Your task to perform on an android device: turn smart compose on in the gmail app Image 0: 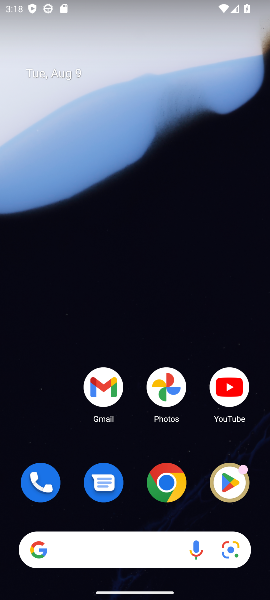
Step 0: drag from (132, 424) to (154, 34)
Your task to perform on an android device: turn smart compose on in the gmail app Image 1: 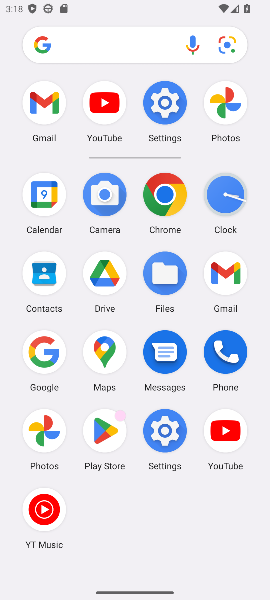
Step 1: click (218, 274)
Your task to perform on an android device: turn smart compose on in the gmail app Image 2: 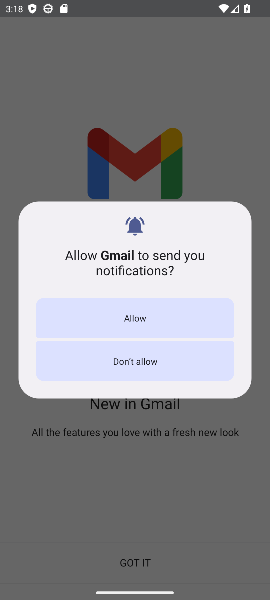
Step 2: click (159, 317)
Your task to perform on an android device: turn smart compose on in the gmail app Image 3: 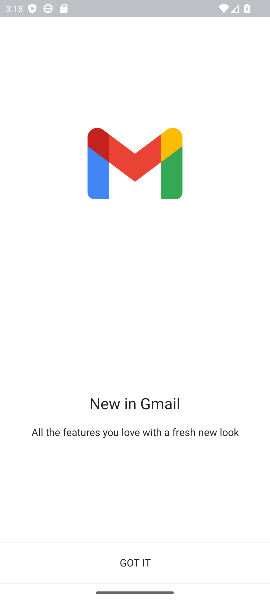
Step 3: click (136, 549)
Your task to perform on an android device: turn smart compose on in the gmail app Image 4: 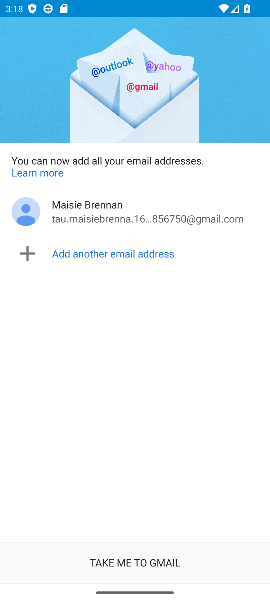
Step 4: click (144, 558)
Your task to perform on an android device: turn smart compose on in the gmail app Image 5: 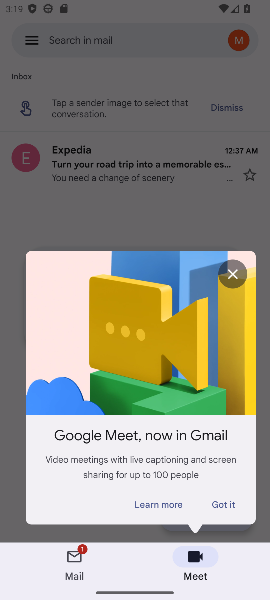
Step 5: click (82, 556)
Your task to perform on an android device: turn smart compose on in the gmail app Image 6: 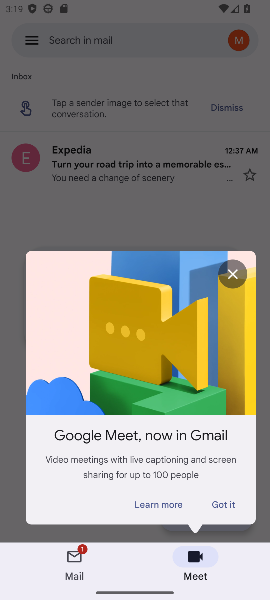
Step 6: click (219, 507)
Your task to perform on an android device: turn smart compose on in the gmail app Image 7: 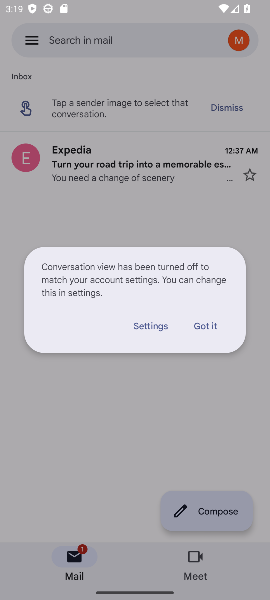
Step 7: click (212, 321)
Your task to perform on an android device: turn smart compose on in the gmail app Image 8: 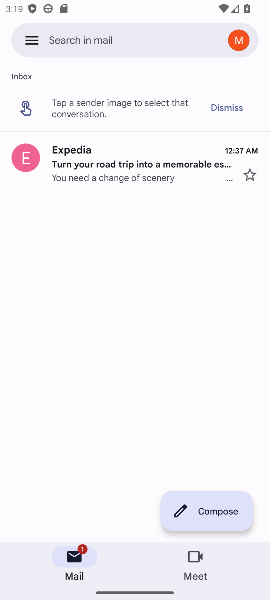
Step 8: click (26, 29)
Your task to perform on an android device: turn smart compose on in the gmail app Image 9: 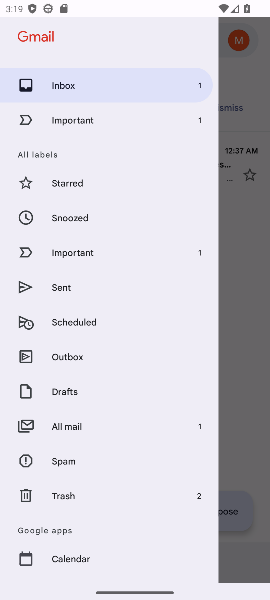
Step 9: drag from (89, 543) to (136, 249)
Your task to perform on an android device: turn smart compose on in the gmail app Image 10: 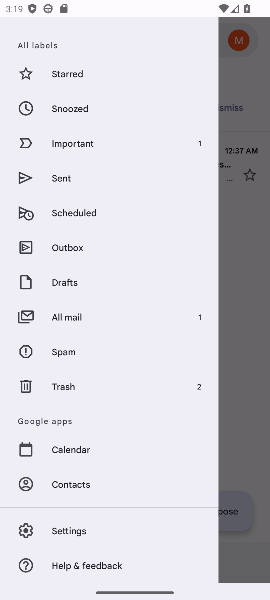
Step 10: click (80, 527)
Your task to perform on an android device: turn smart compose on in the gmail app Image 11: 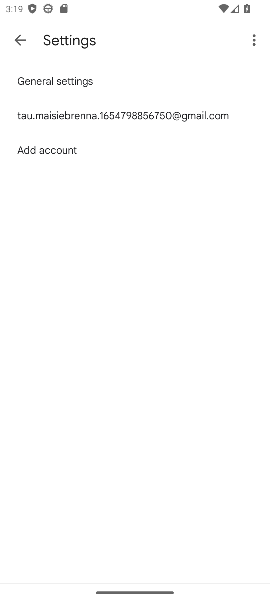
Step 11: click (53, 118)
Your task to perform on an android device: turn smart compose on in the gmail app Image 12: 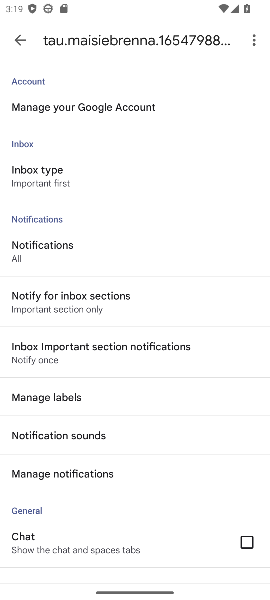
Step 12: task complete